Your task to perform on an android device: clear history in the chrome app Image 0: 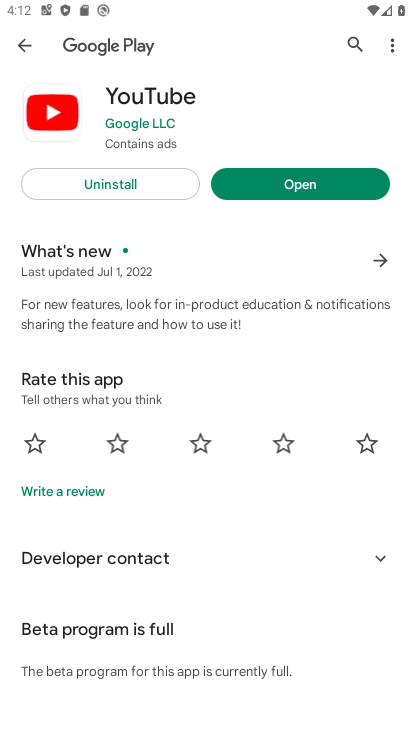
Step 0: press home button
Your task to perform on an android device: clear history in the chrome app Image 1: 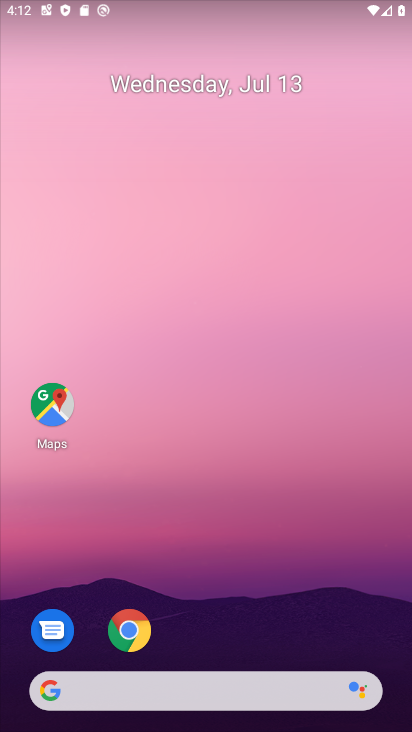
Step 1: drag from (164, 630) to (168, 30)
Your task to perform on an android device: clear history in the chrome app Image 2: 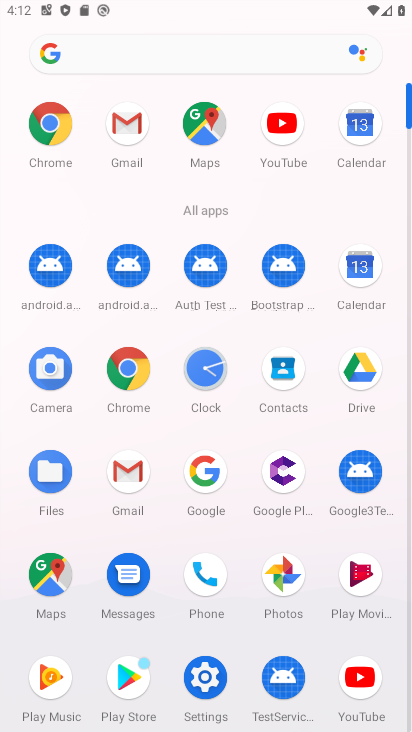
Step 2: click (135, 373)
Your task to perform on an android device: clear history in the chrome app Image 3: 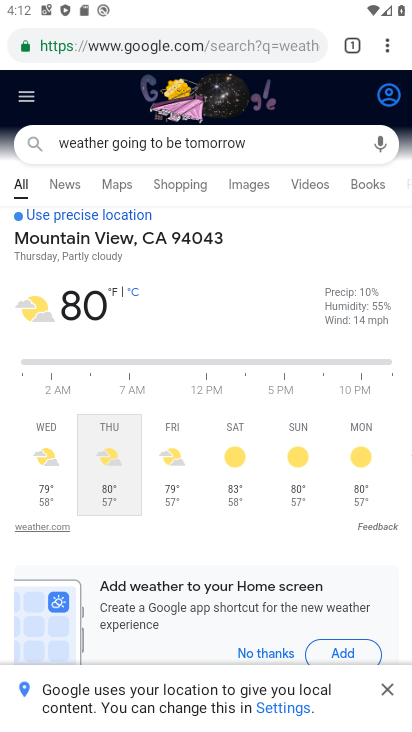
Step 3: task complete